Your task to perform on an android device: Go to eBay Image 0: 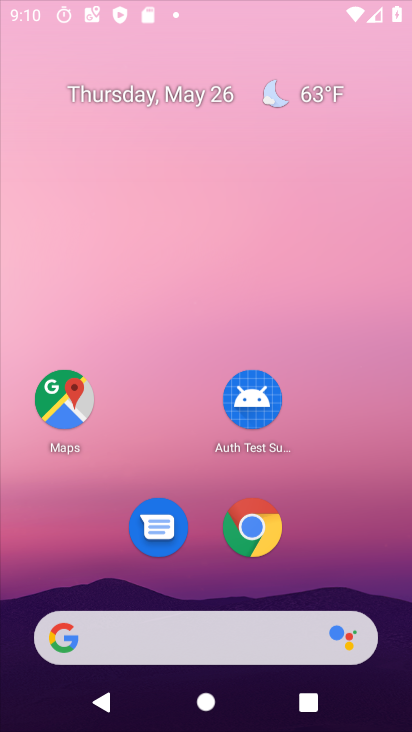
Step 0: drag from (381, 2) to (261, 3)
Your task to perform on an android device: Go to eBay Image 1: 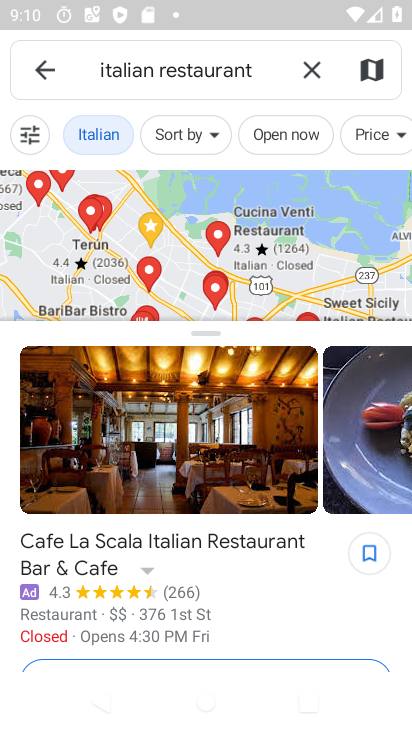
Step 1: press home button
Your task to perform on an android device: Go to eBay Image 2: 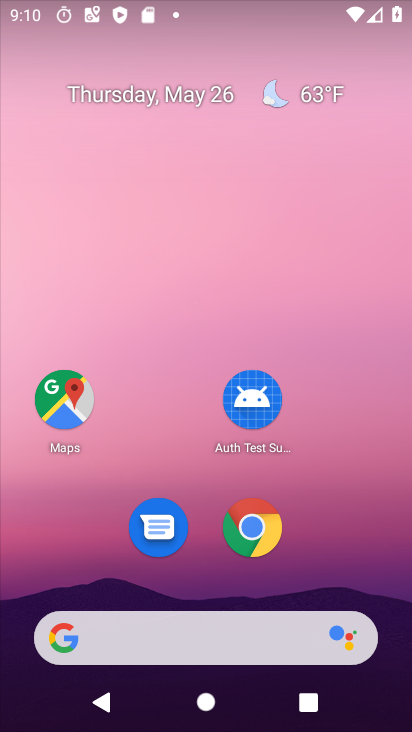
Step 2: press home button
Your task to perform on an android device: Go to eBay Image 3: 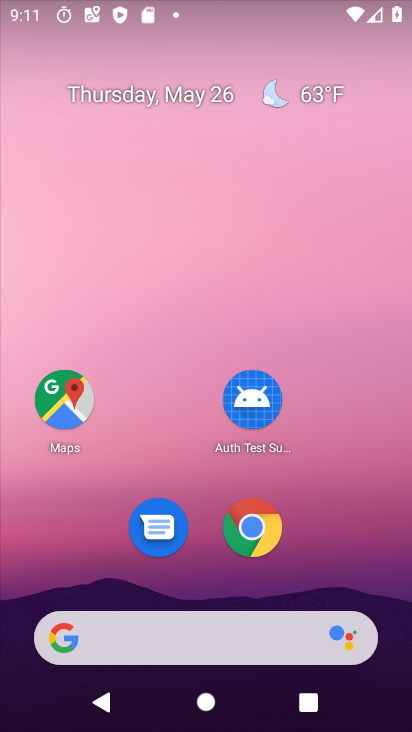
Step 3: click (269, 534)
Your task to perform on an android device: Go to eBay Image 4: 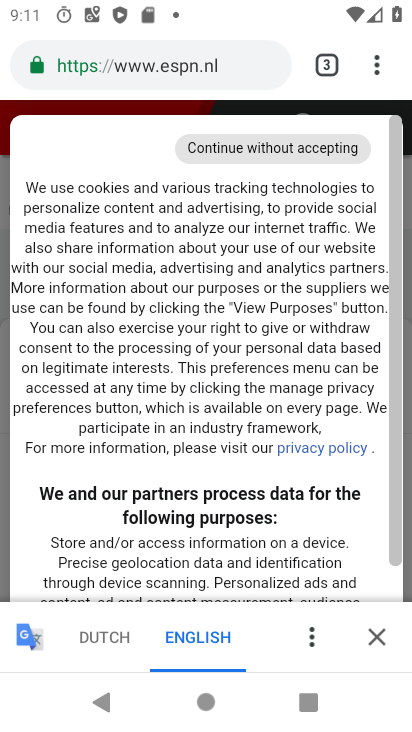
Step 4: click (184, 57)
Your task to perform on an android device: Go to eBay Image 5: 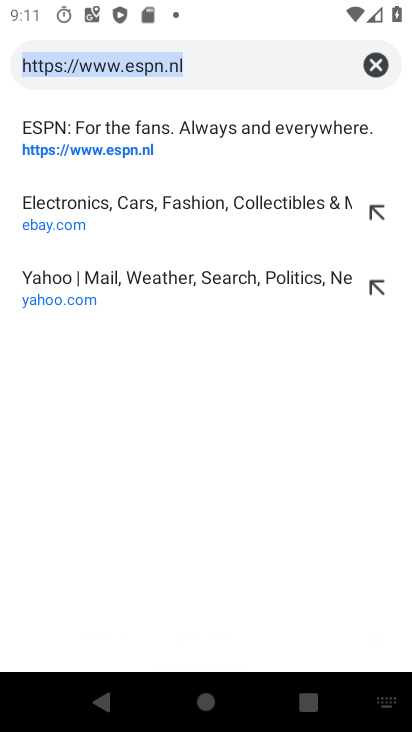
Step 5: click (371, 62)
Your task to perform on an android device: Go to eBay Image 6: 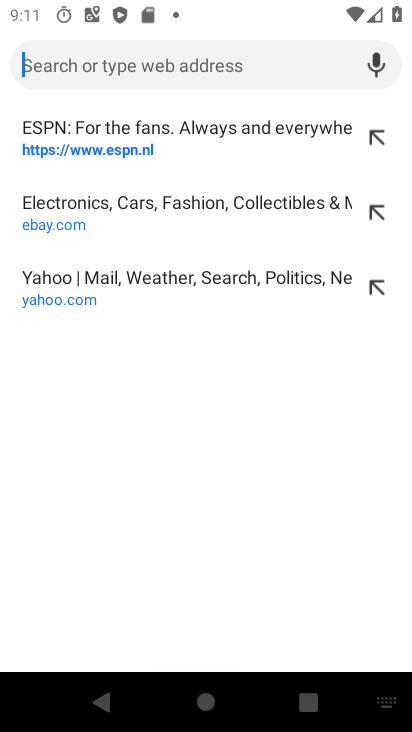
Step 6: type "ebay"
Your task to perform on an android device: Go to eBay Image 7: 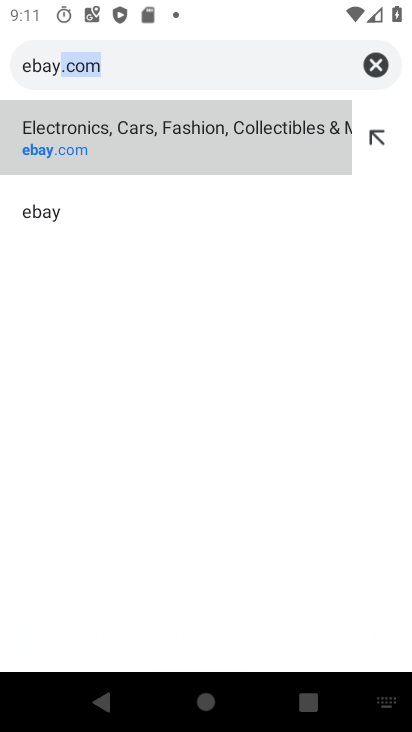
Step 7: click (172, 121)
Your task to perform on an android device: Go to eBay Image 8: 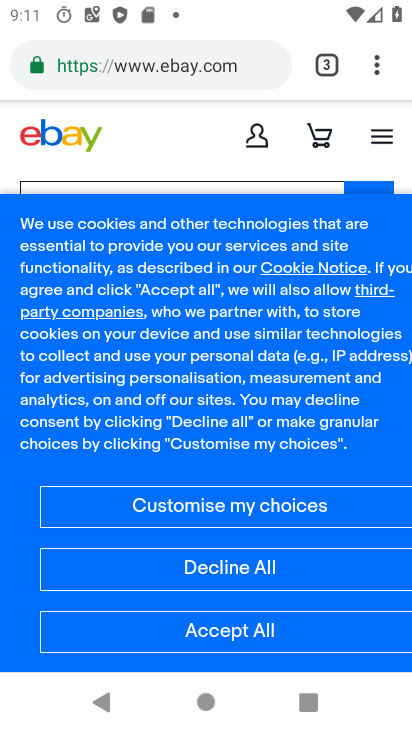
Step 8: task complete